Your task to perform on an android device: toggle wifi Image 0: 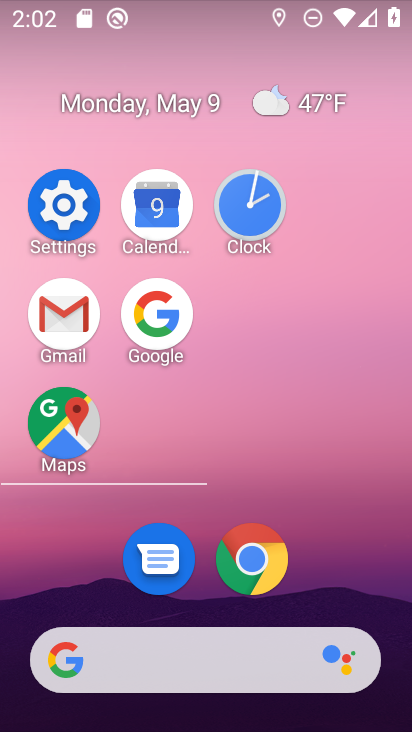
Step 0: click (398, 418)
Your task to perform on an android device: toggle wifi Image 1: 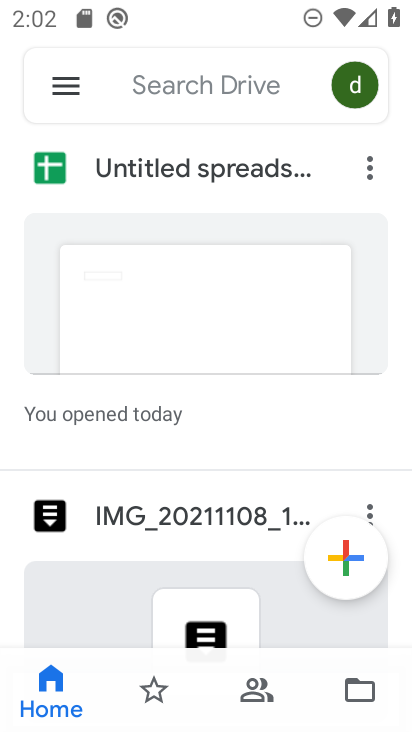
Step 1: press home button
Your task to perform on an android device: toggle wifi Image 2: 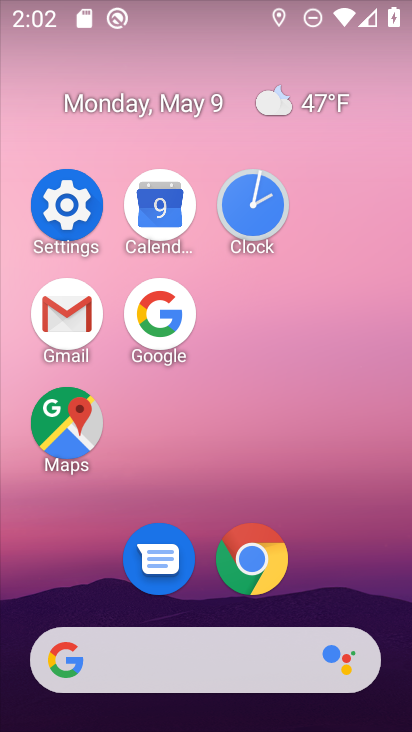
Step 2: click (62, 198)
Your task to perform on an android device: toggle wifi Image 3: 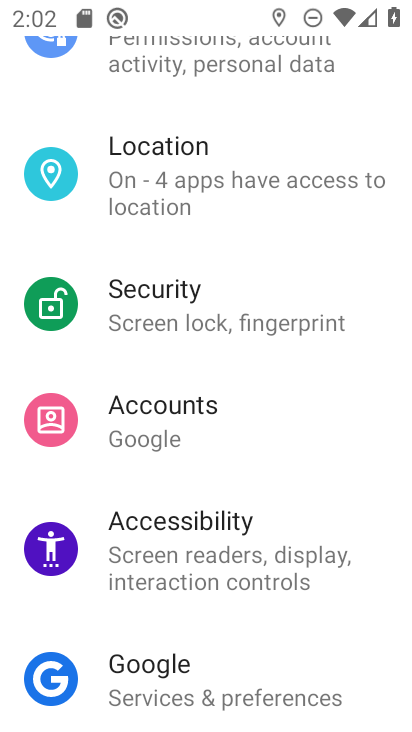
Step 3: drag from (325, 136) to (357, 552)
Your task to perform on an android device: toggle wifi Image 4: 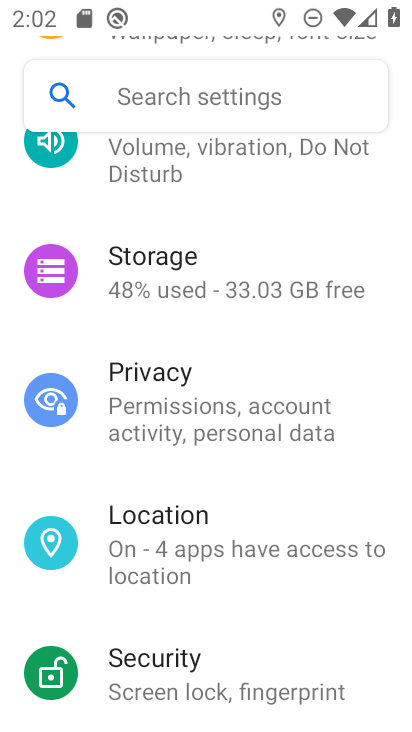
Step 4: drag from (311, 236) to (312, 561)
Your task to perform on an android device: toggle wifi Image 5: 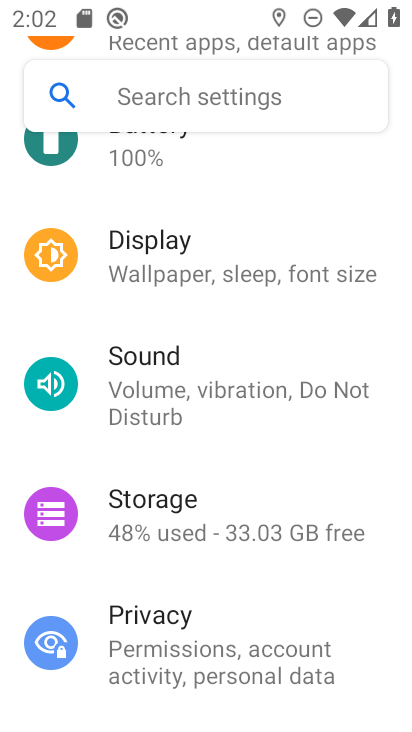
Step 5: drag from (303, 219) to (324, 573)
Your task to perform on an android device: toggle wifi Image 6: 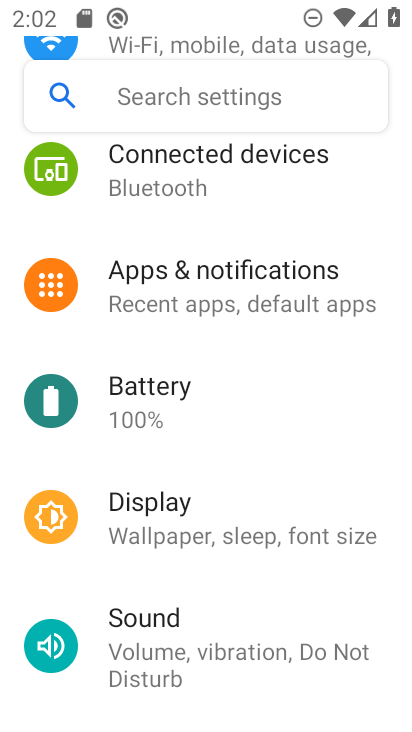
Step 6: drag from (280, 214) to (318, 505)
Your task to perform on an android device: toggle wifi Image 7: 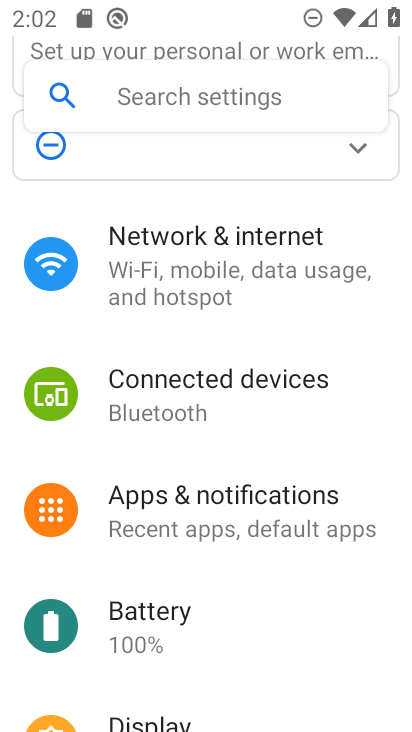
Step 7: click (235, 233)
Your task to perform on an android device: toggle wifi Image 8: 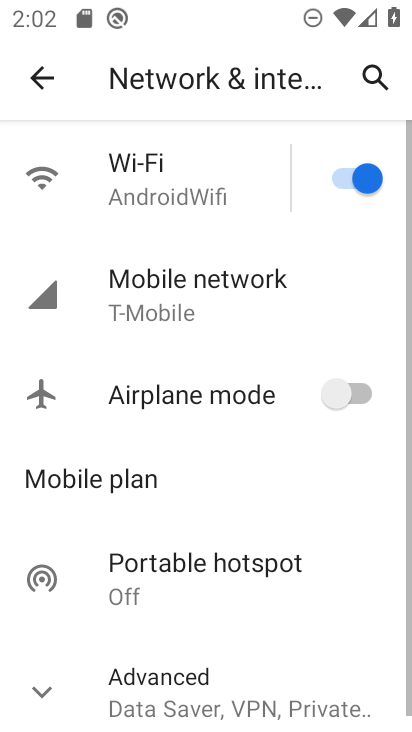
Step 8: click (361, 189)
Your task to perform on an android device: toggle wifi Image 9: 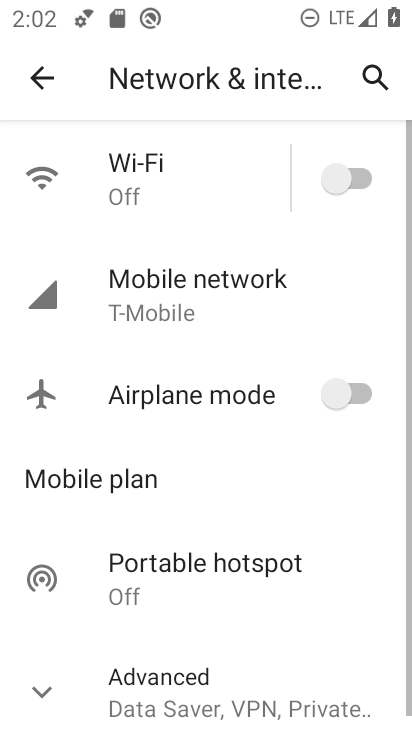
Step 9: task complete